Your task to perform on an android device: turn off notifications settings in the gmail app Image 0: 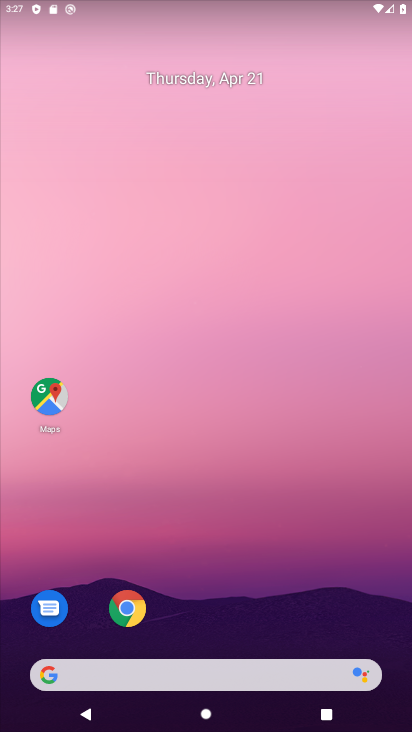
Step 0: drag from (174, 629) to (235, 191)
Your task to perform on an android device: turn off notifications settings in the gmail app Image 1: 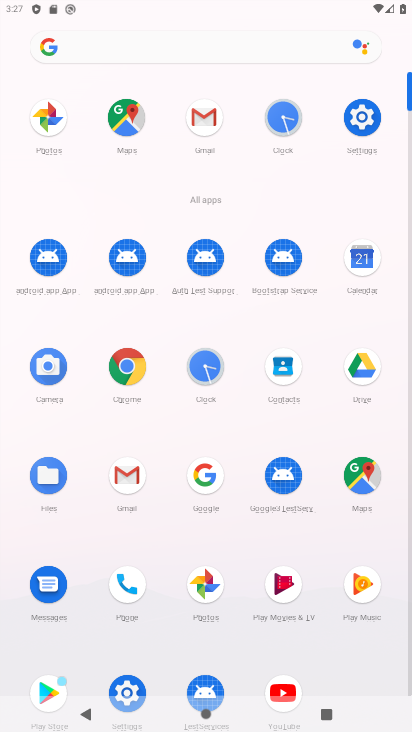
Step 1: click (209, 135)
Your task to perform on an android device: turn off notifications settings in the gmail app Image 2: 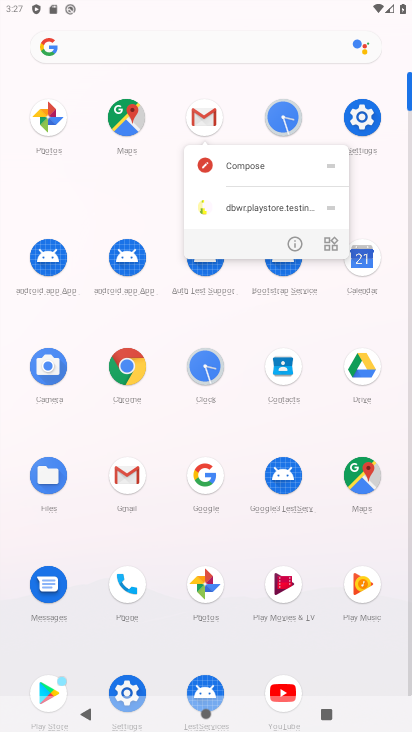
Step 2: click (209, 116)
Your task to perform on an android device: turn off notifications settings in the gmail app Image 3: 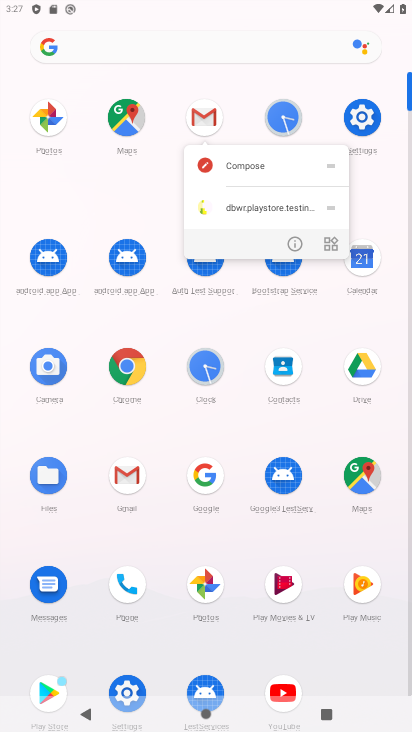
Step 3: click (200, 118)
Your task to perform on an android device: turn off notifications settings in the gmail app Image 4: 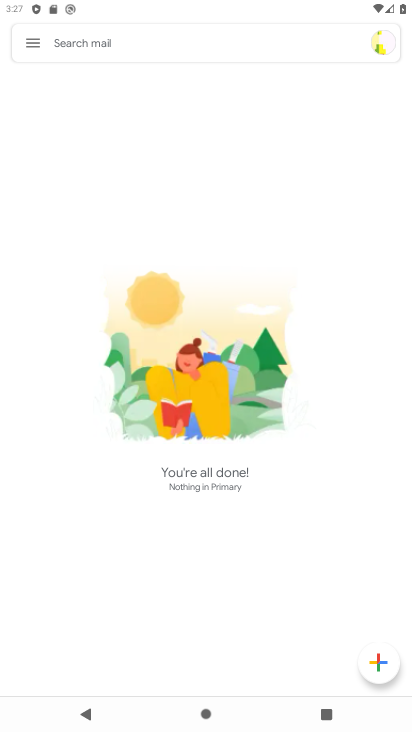
Step 4: click (35, 46)
Your task to perform on an android device: turn off notifications settings in the gmail app Image 5: 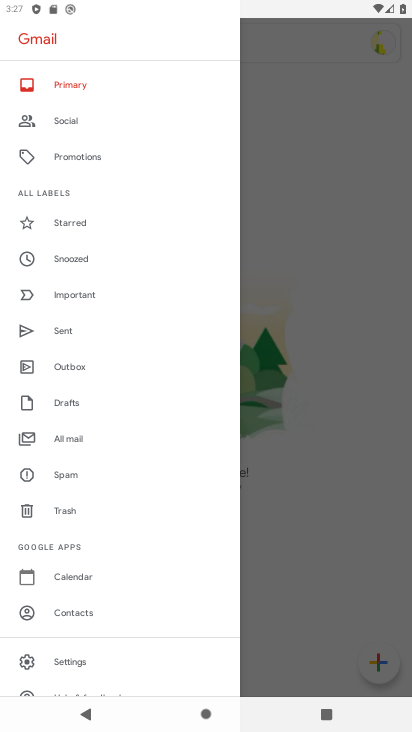
Step 5: click (85, 663)
Your task to perform on an android device: turn off notifications settings in the gmail app Image 6: 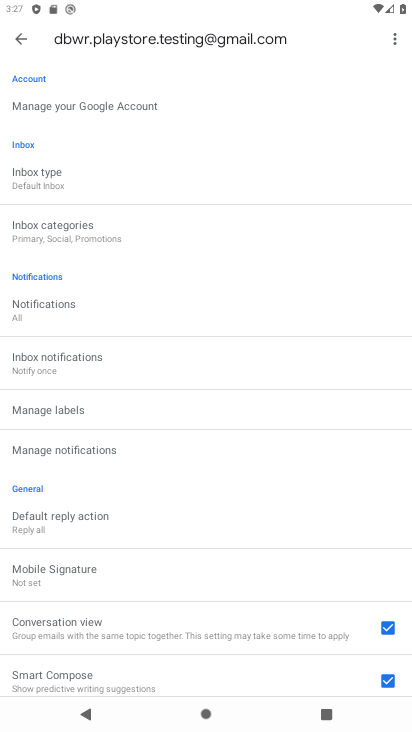
Step 6: click (72, 294)
Your task to perform on an android device: turn off notifications settings in the gmail app Image 7: 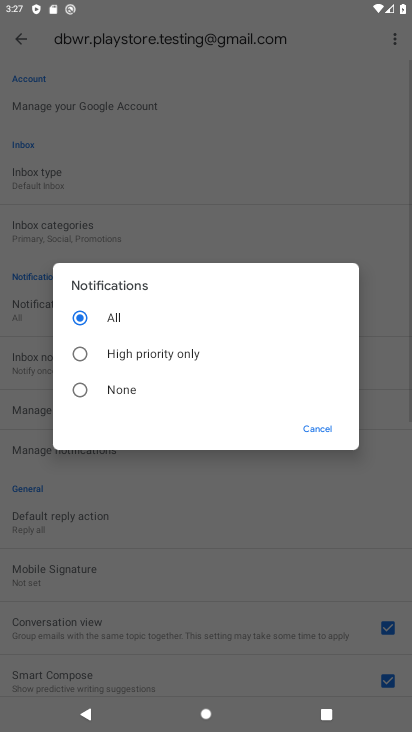
Step 7: click (155, 387)
Your task to perform on an android device: turn off notifications settings in the gmail app Image 8: 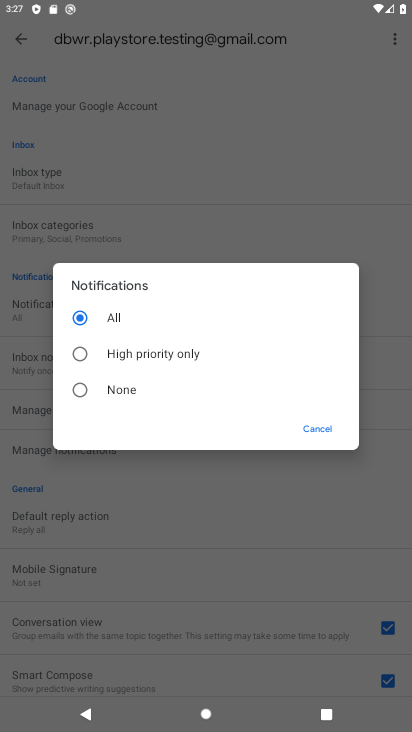
Step 8: click (143, 396)
Your task to perform on an android device: turn off notifications settings in the gmail app Image 9: 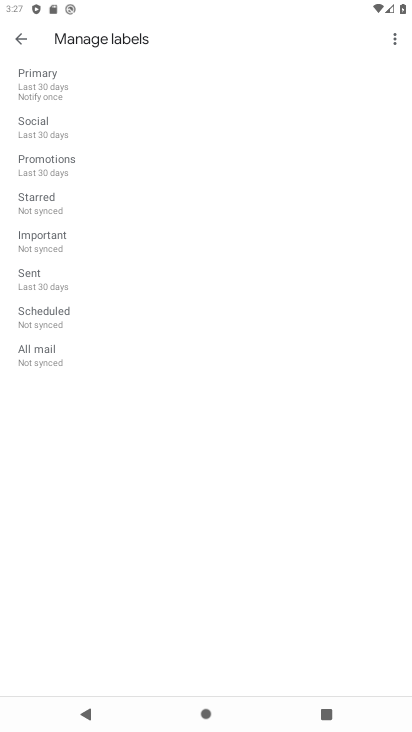
Step 9: task complete